Your task to perform on an android device: Add "usb-b" to the cart on target, then select checkout. Image 0: 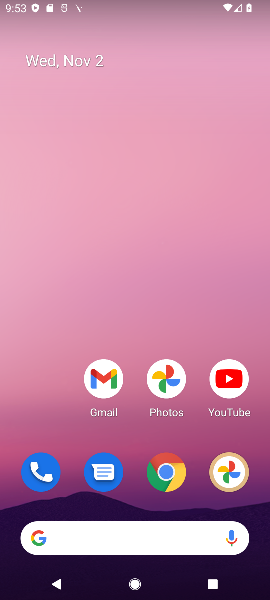
Step 0: task complete